Your task to perform on an android device: change the clock style Image 0: 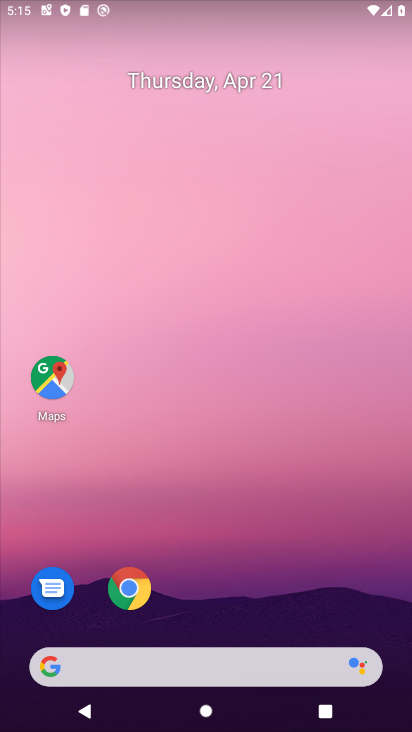
Step 0: drag from (245, 522) to (308, 192)
Your task to perform on an android device: change the clock style Image 1: 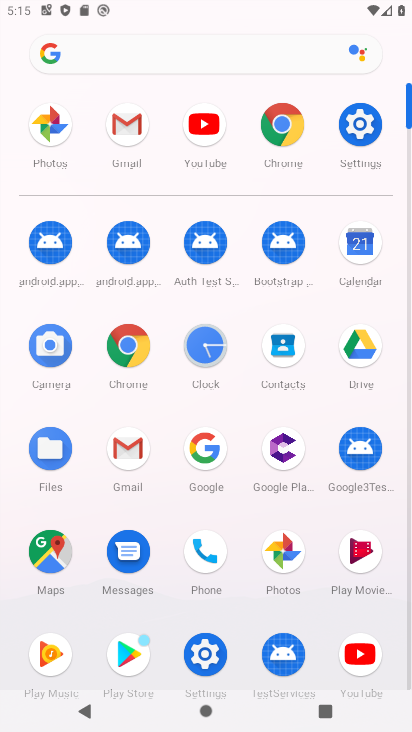
Step 1: click (194, 338)
Your task to perform on an android device: change the clock style Image 2: 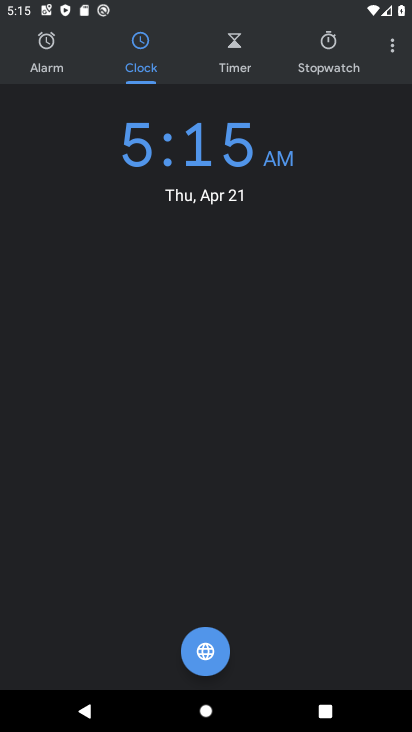
Step 2: click (390, 43)
Your task to perform on an android device: change the clock style Image 3: 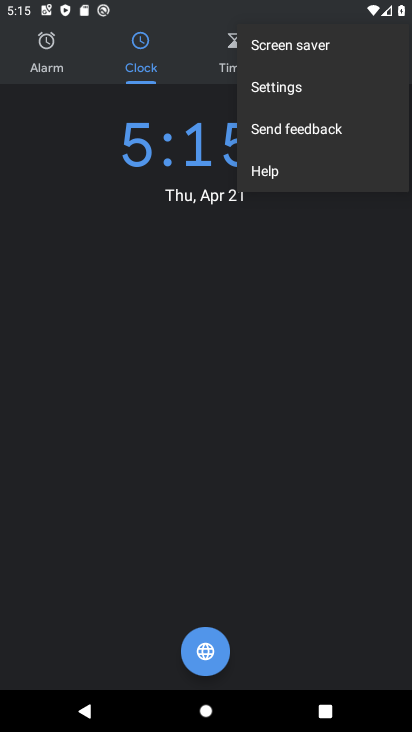
Step 3: click (287, 86)
Your task to perform on an android device: change the clock style Image 4: 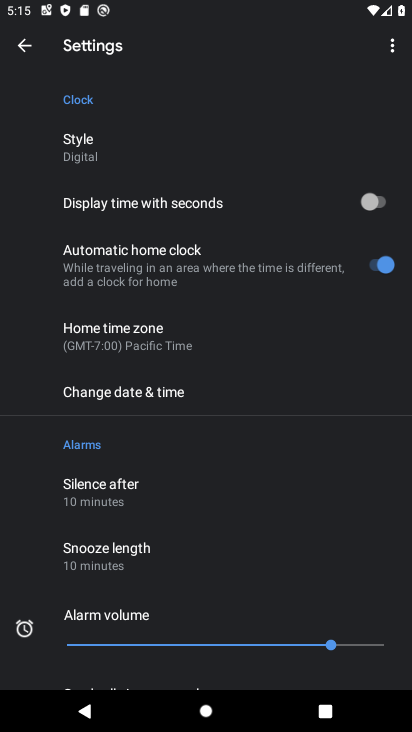
Step 4: click (128, 136)
Your task to perform on an android device: change the clock style Image 5: 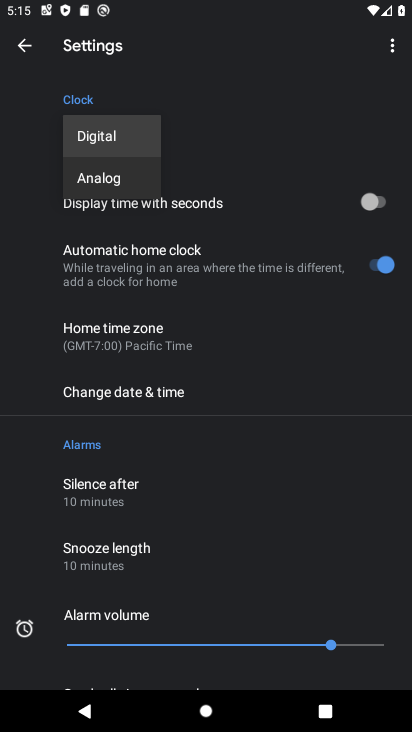
Step 5: click (116, 188)
Your task to perform on an android device: change the clock style Image 6: 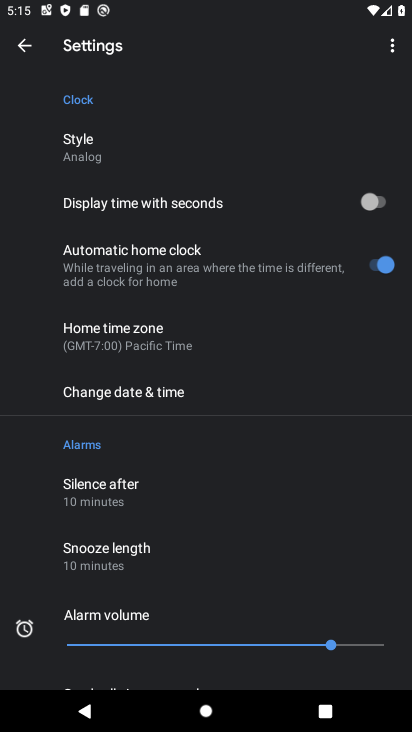
Step 6: task complete